Your task to perform on an android device: read, delete, or share a saved page in the chrome app Image 0: 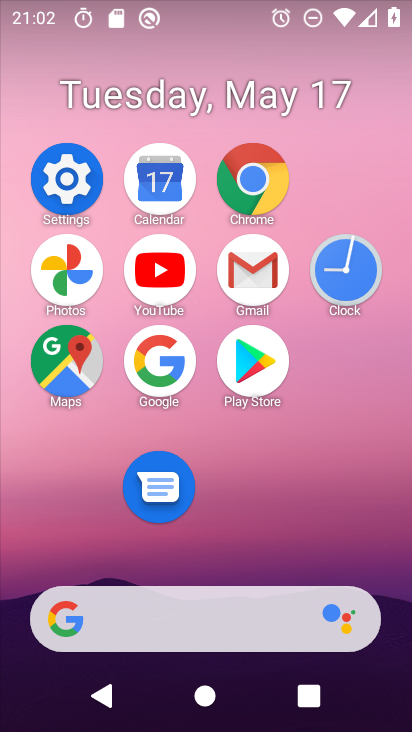
Step 0: click (266, 196)
Your task to perform on an android device: read, delete, or share a saved page in the chrome app Image 1: 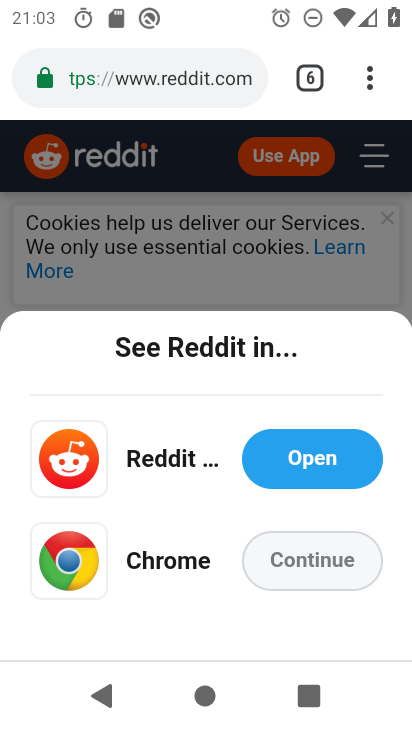
Step 1: click (376, 77)
Your task to perform on an android device: read, delete, or share a saved page in the chrome app Image 2: 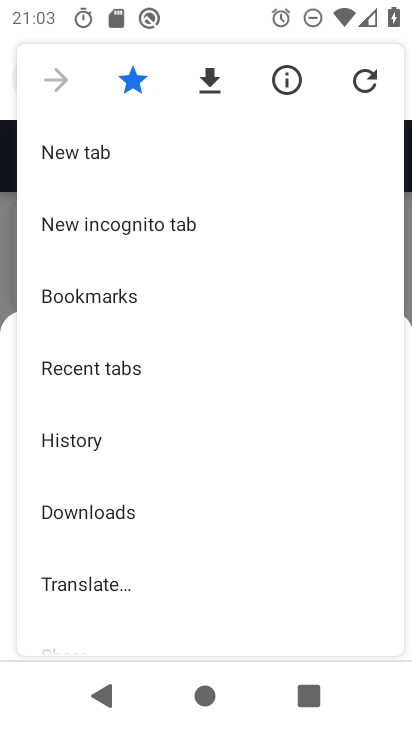
Step 2: click (136, 521)
Your task to perform on an android device: read, delete, or share a saved page in the chrome app Image 3: 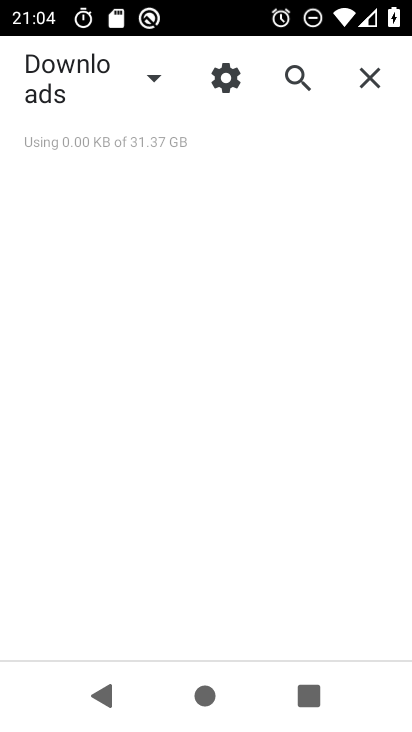
Step 3: task complete